Your task to perform on an android device: Open Google Chrome Image 0: 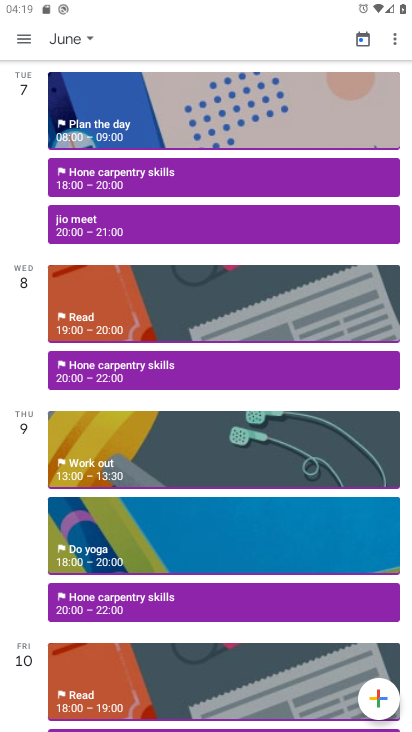
Step 0: press home button
Your task to perform on an android device: Open Google Chrome Image 1: 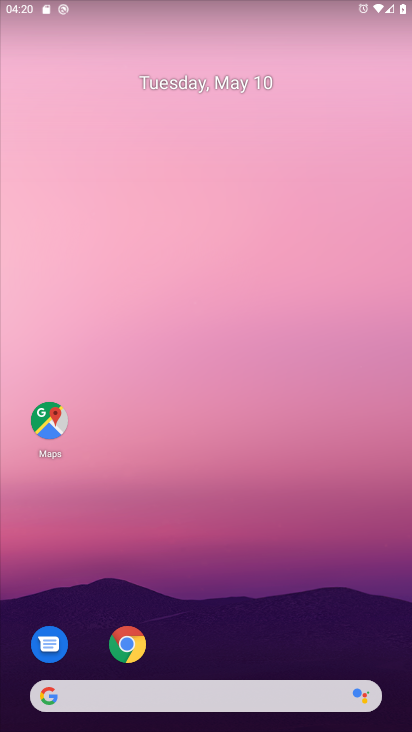
Step 1: click (130, 646)
Your task to perform on an android device: Open Google Chrome Image 2: 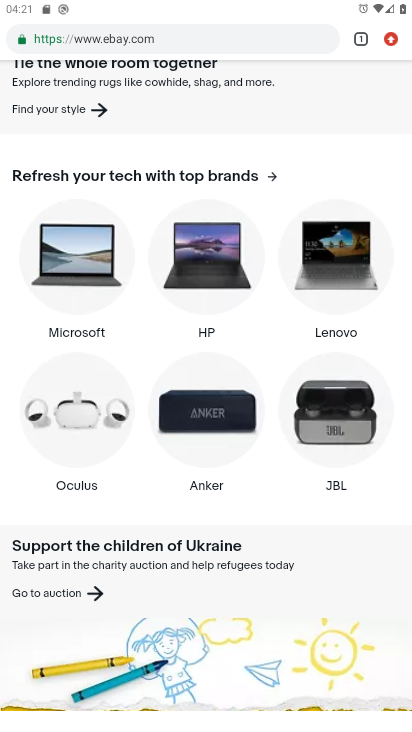
Step 2: task complete